Your task to perform on an android device: toggle location history Image 0: 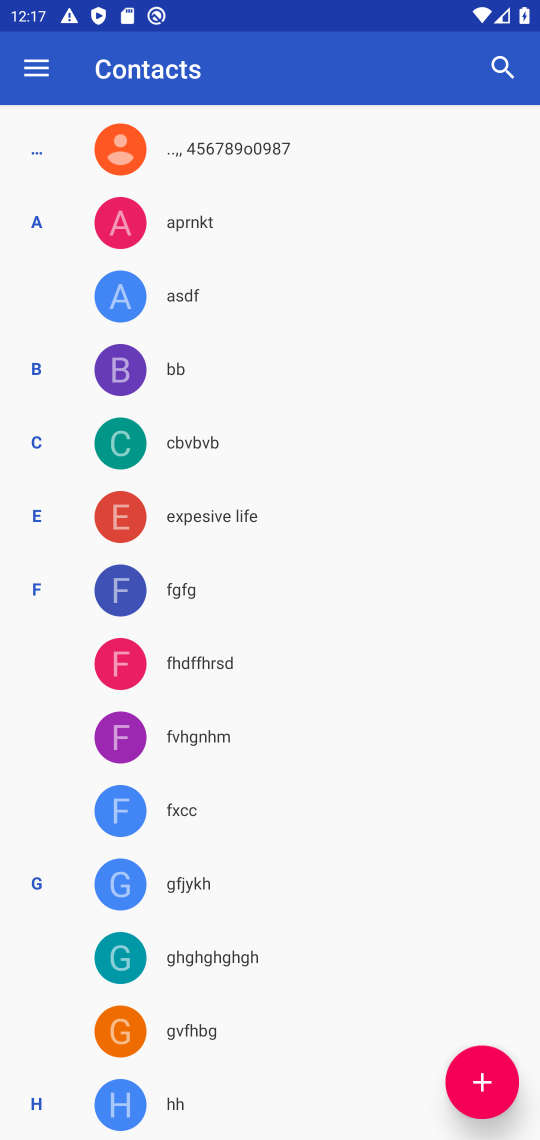
Step 0: press home button
Your task to perform on an android device: toggle location history Image 1: 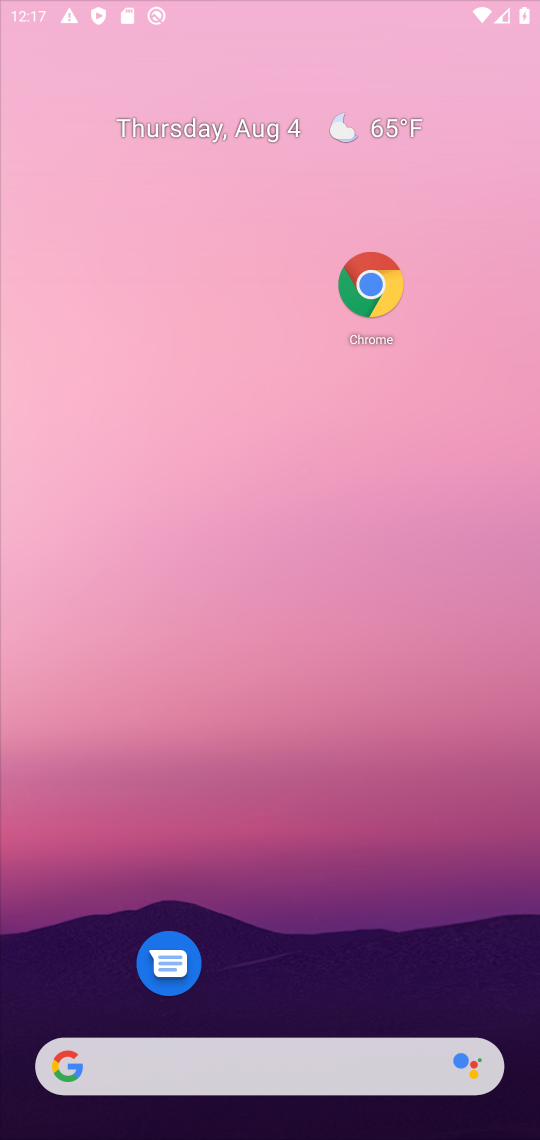
Step 1: drag from (334, 996) to (387, 146)
Your task to perform on an android device: toggle location history Image 2: 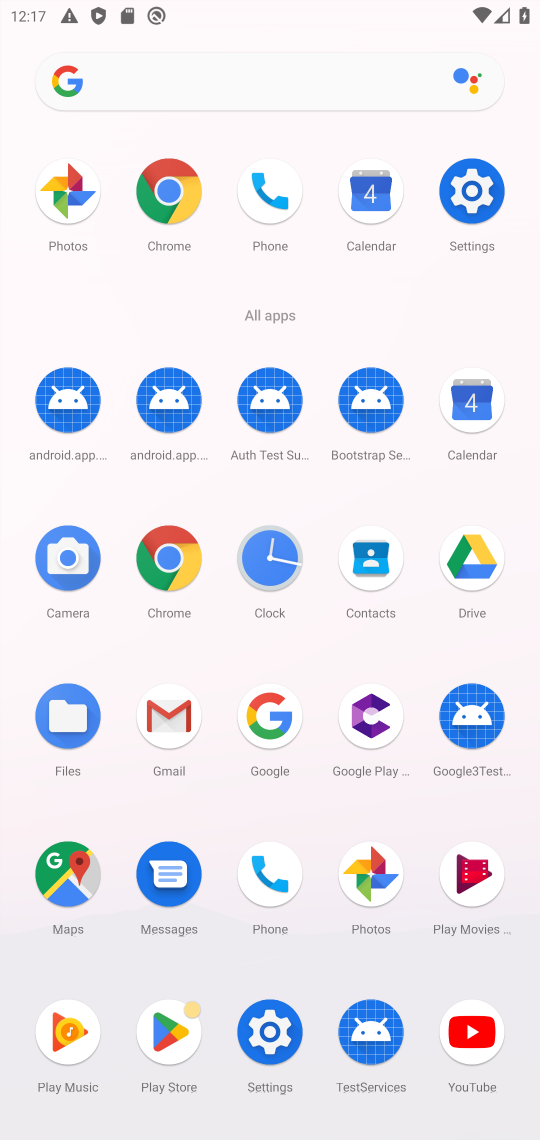
Step 2: click (454, 211)
Your task to perform on an android device: toggle location history Image 3: 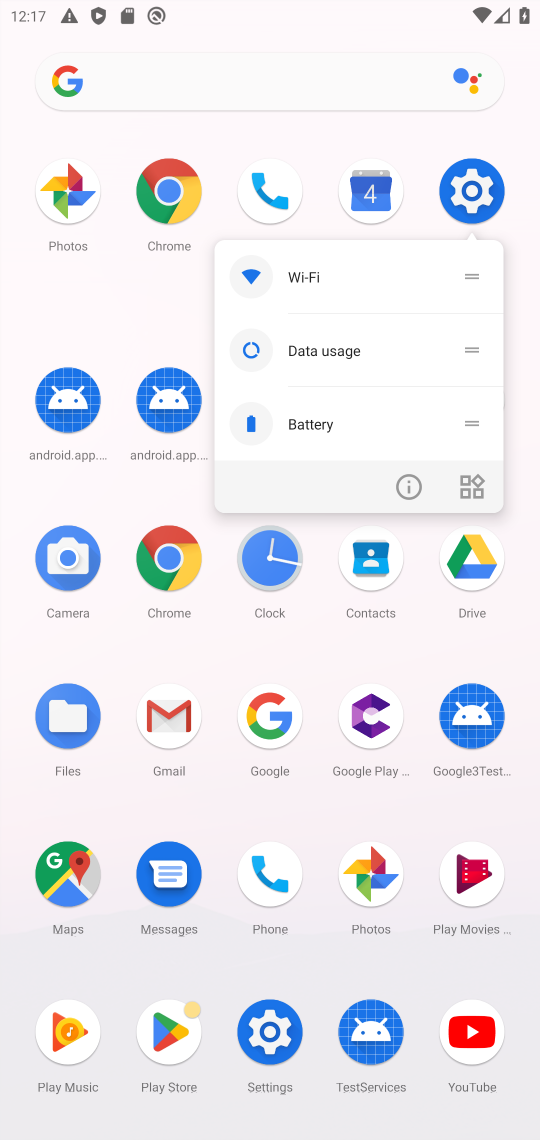
Step 3: click (488, 188)
Your task to perform on an android device: toggle location history Image 4: 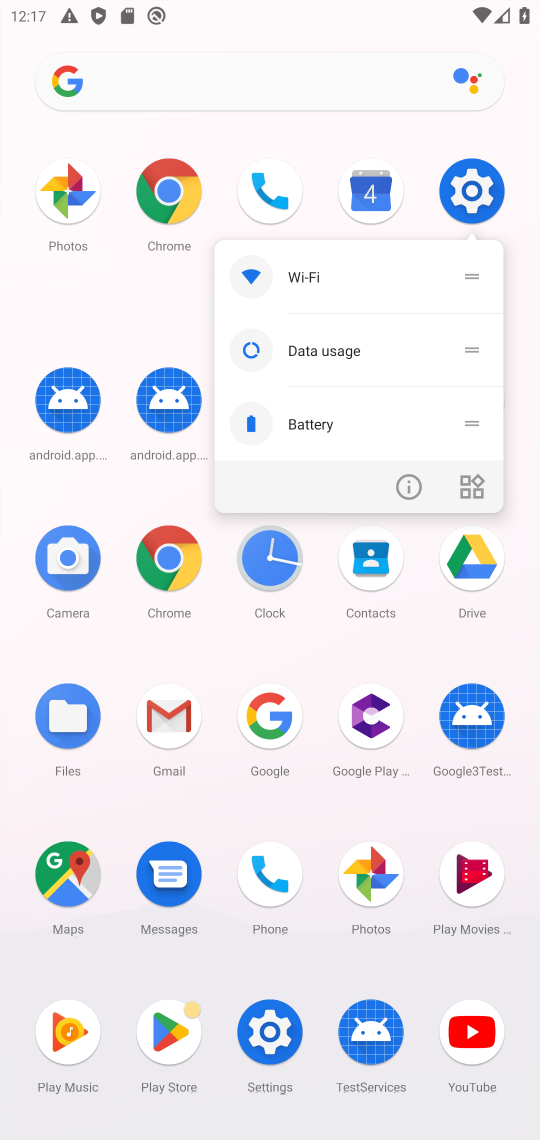
Step 4: click (482, 209)
Your task to perform on an android device: toggle location history Image 5: 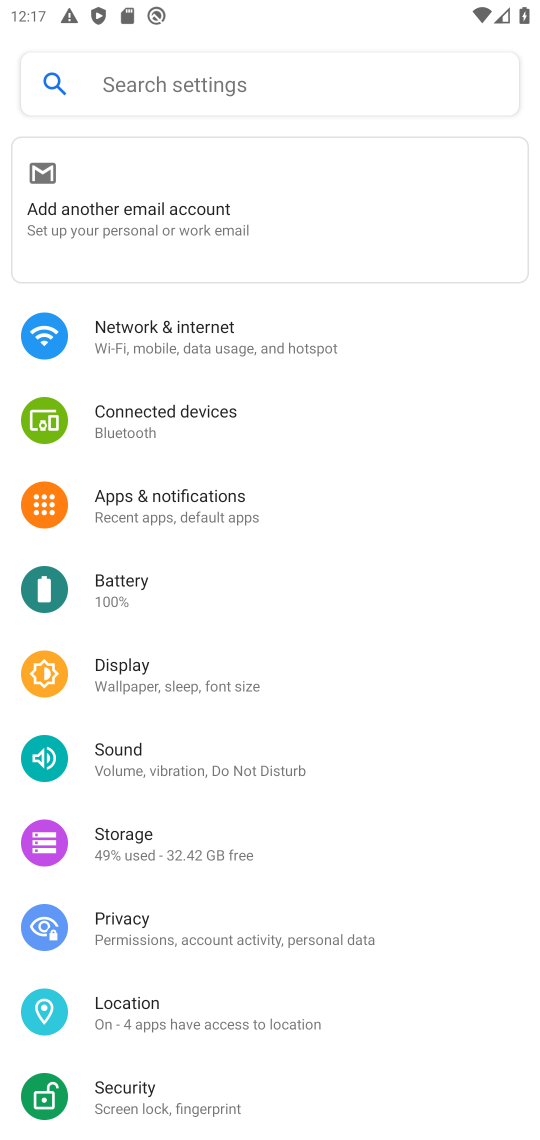
Step 5: click (136, 1004)
Your task to perform on an android device: toggle location history Image 6: 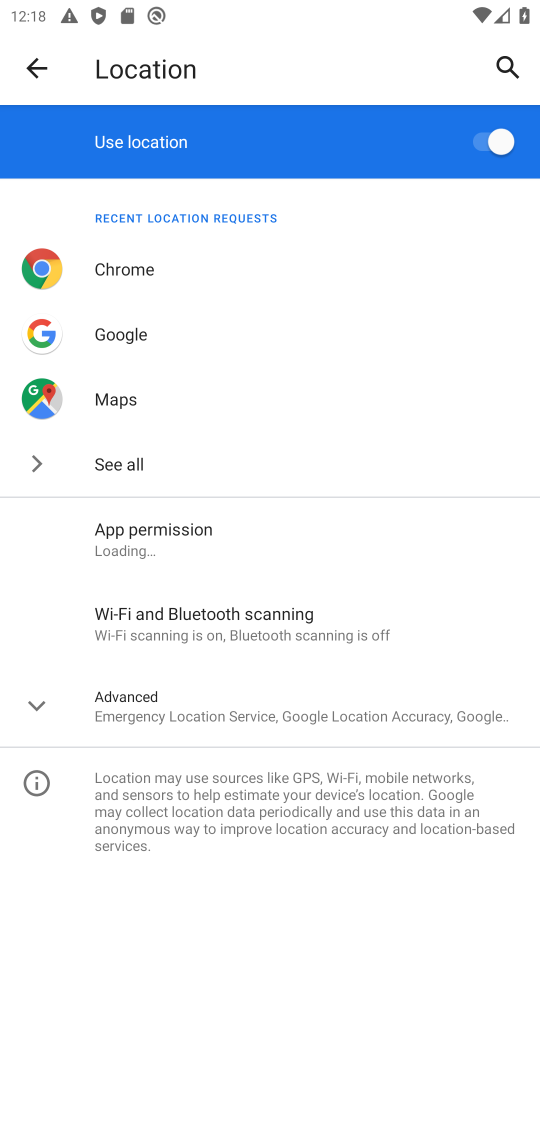
Step 6: click (154, 717)
Your task to perform on an android device: toggle location history Image 7: 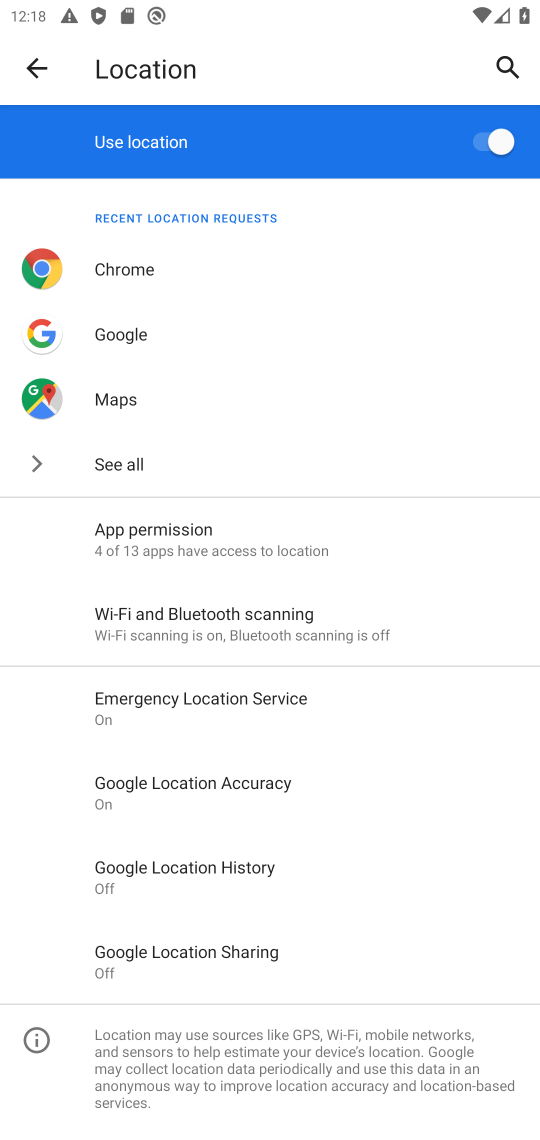
Step 7: click (244, 875)
Your task to perform on an android device: toggle location history Image 8: 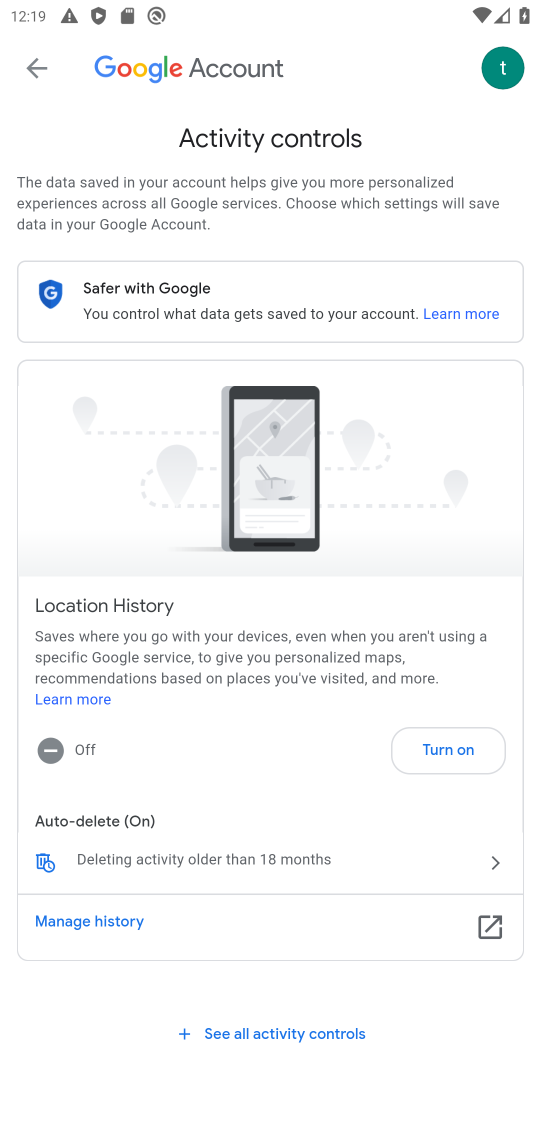
Step 8: click (457, 742)
Your task to perform on an android device: toggle location history Image 9: 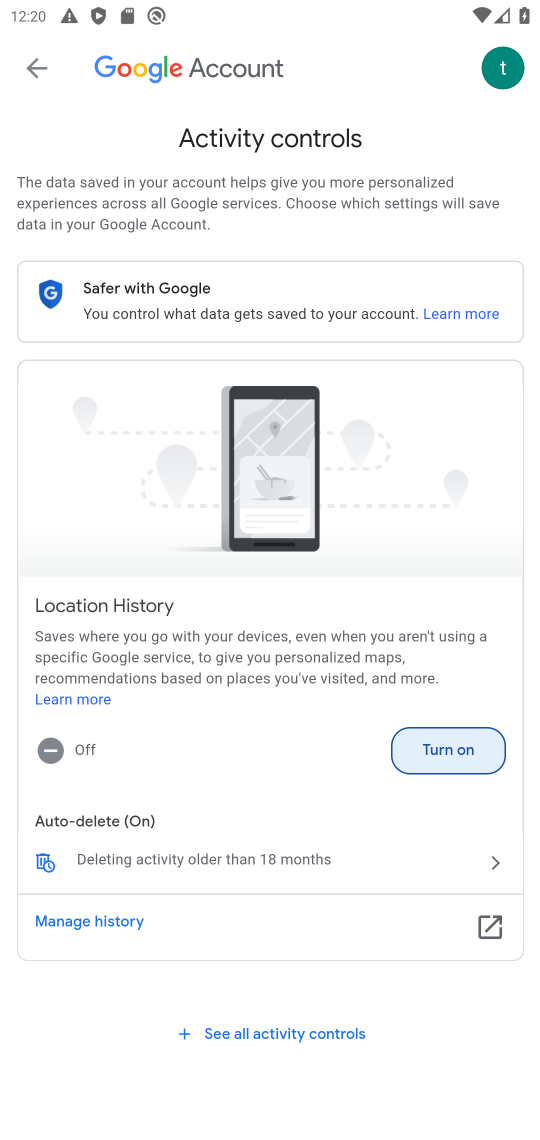
Step 9: task complete